Your task to perform on an android device: move an email to a new category in the gmail app Image 0: 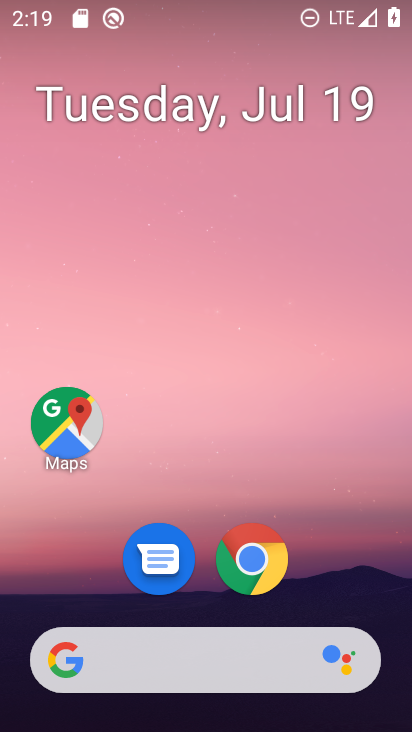
Step 0: drag from (149, 652) to (127, 158)
Your task to perform on an android device: move an email to a new category in the gmail app Image 1: 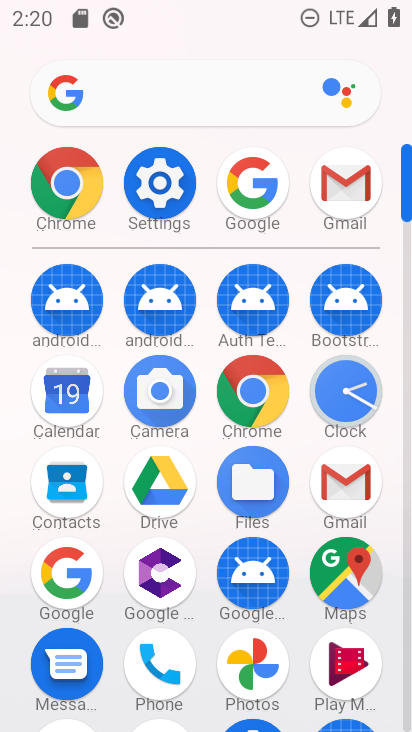
Step 1: click (360, 500)
Your task to perform on an android device: move an email to a new category in the gmail app Image 2: 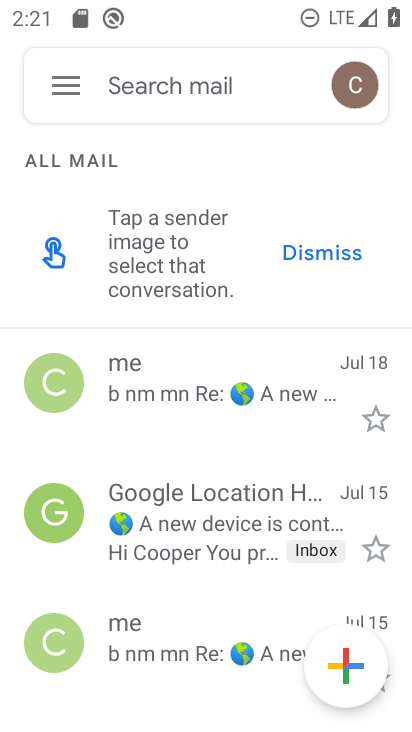
Step 2: click (139, 537)
Your task to perform on an android device: move an email to a new category in the gmail app Image 3: 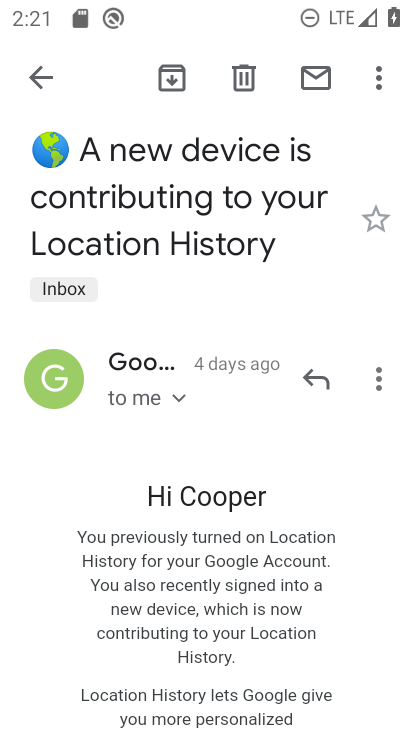
Step 3: click (378, 91)
Your task to perform on an android device: move an email to a new category in the gmail app Image 4: 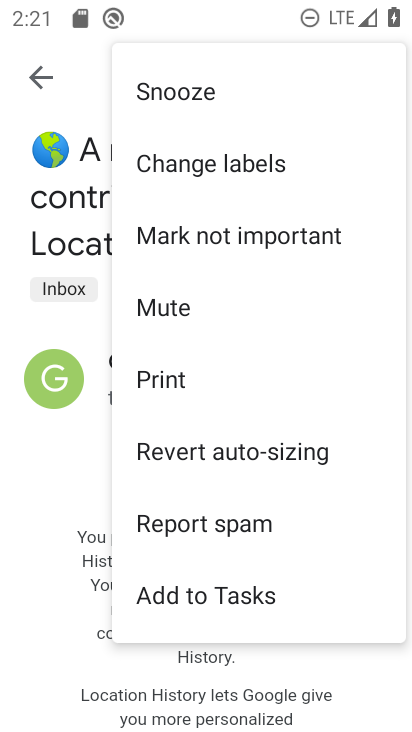
Step 4: drag from (163, 532) to (157, 346)
Your task to perform on an android device: move an email to a new category in the gmail app Image 5: 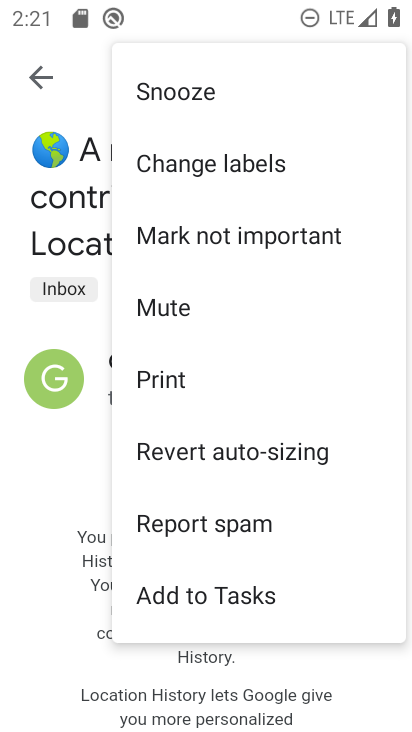
Step 5: drag from (158, 514) to (176, 212)
Your task to perform on an android device: move an email to a new category in the gmail app Image 6: 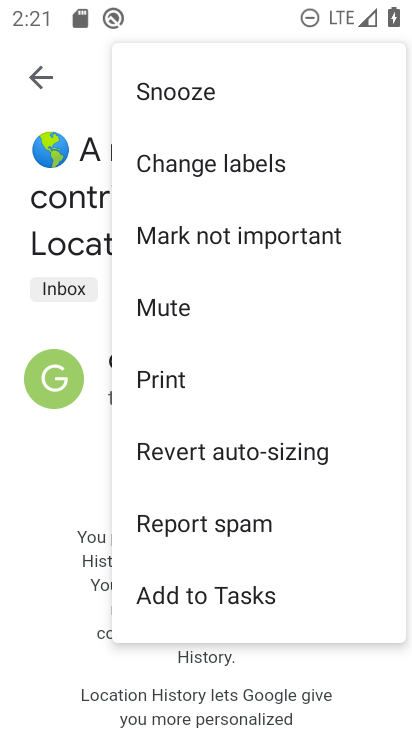
Step 6: click (305, 162)
Your task to perform on an android device: move an email to a new category in the gmail app Image 7: 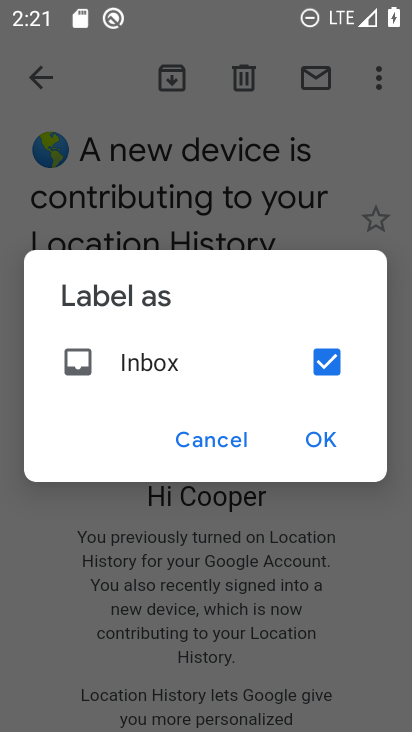
Step 7: click (319, 423)
Your task to perform on an android device: move an email to a new category in the gmail app Image 8: 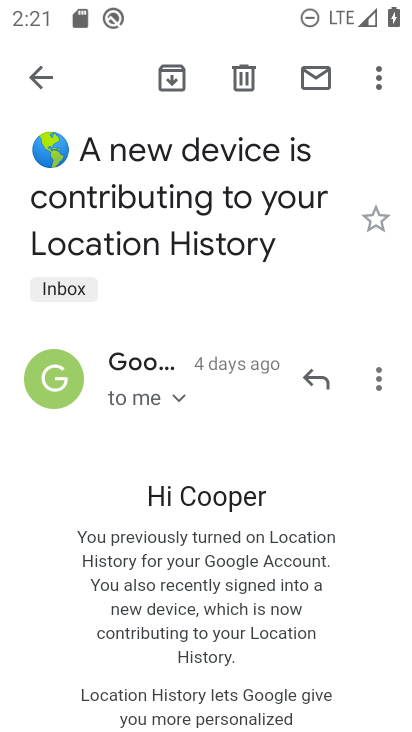
Step 8: task complete